Your task to perform on an android device: check data usage Image 0: 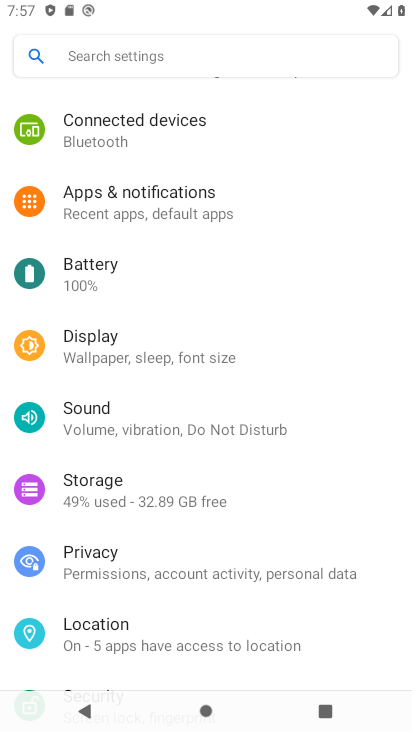
Step 0: drag from (378, 488) to (375, 309)
Your task to perform on an android device: check data usage Image 1: 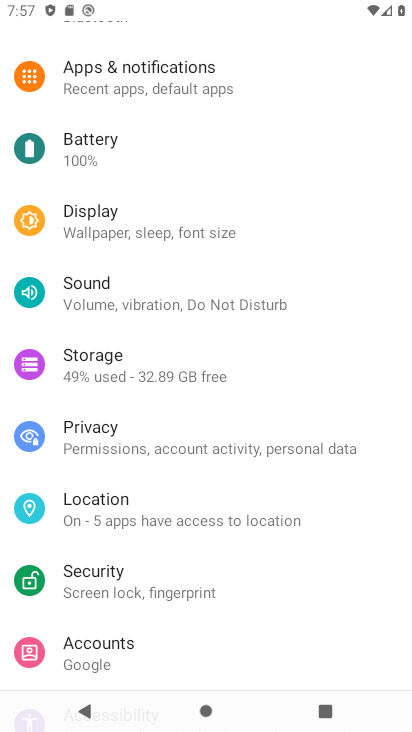
Step 1: drag from (362, 591) to (345, 413)
Your task to perform on an android device: check data usage Image 2: 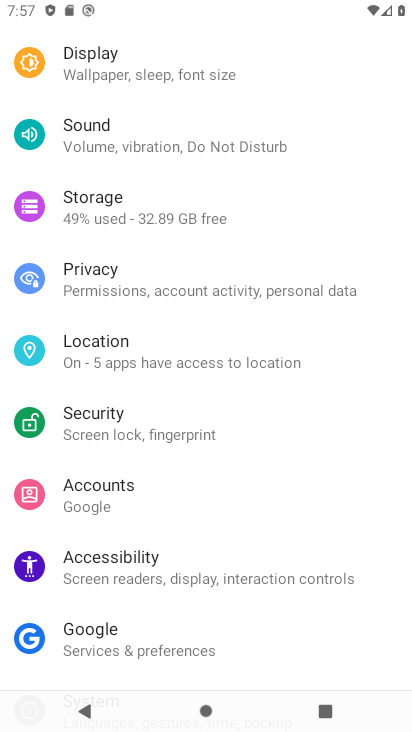
Step 2: drag from (323, 637) to (337, 464)
Your task to perform on an android device: check data usage Image 3: 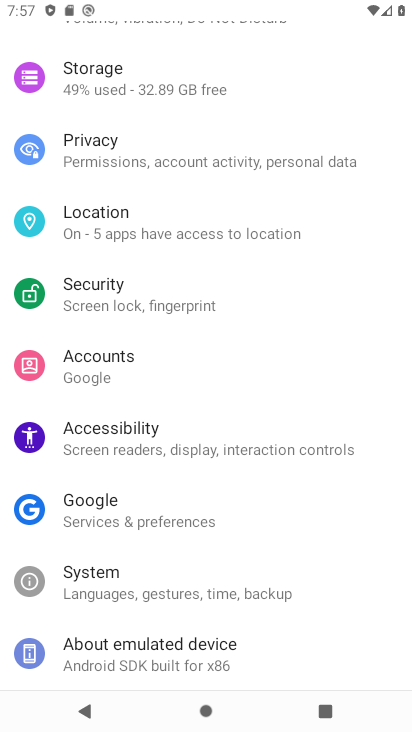
Step 3: drag from (329, 636) to (343, 491)
Your task to perform on an android device: check data usage Image 4: 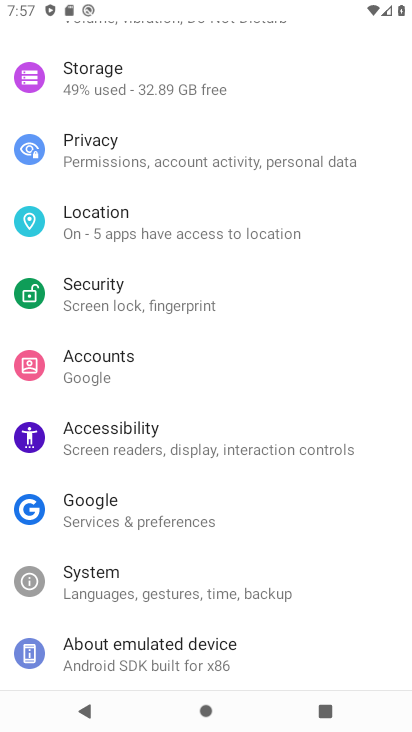
Step 4: drag from (336, 357) to (339, 476)
Your task to perform on an android device: check data usage Image 5: 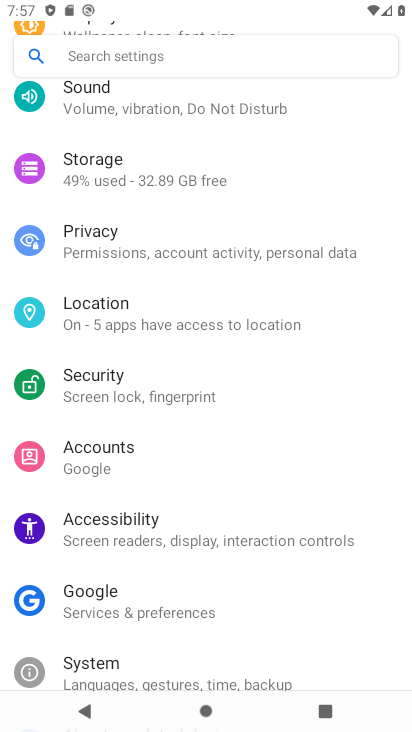
Step 5: drag from (350, 335) to (362, 440)
Your task to perform on an android device: check data usage Image 6: 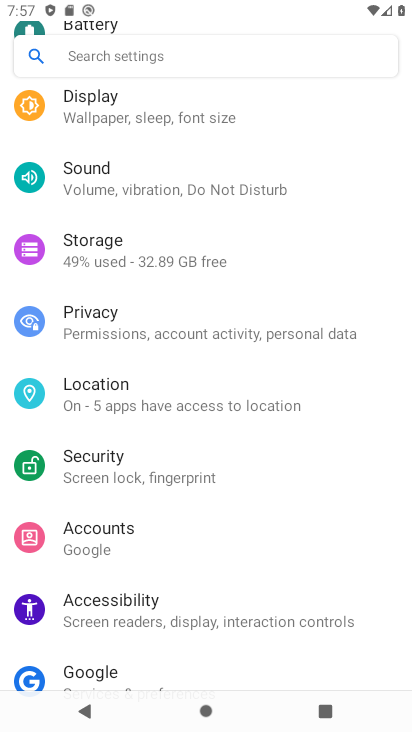
Step 6: drag from (387, 293) to (365, 444)
Your task to perform on an android device: check data usage Image 7: 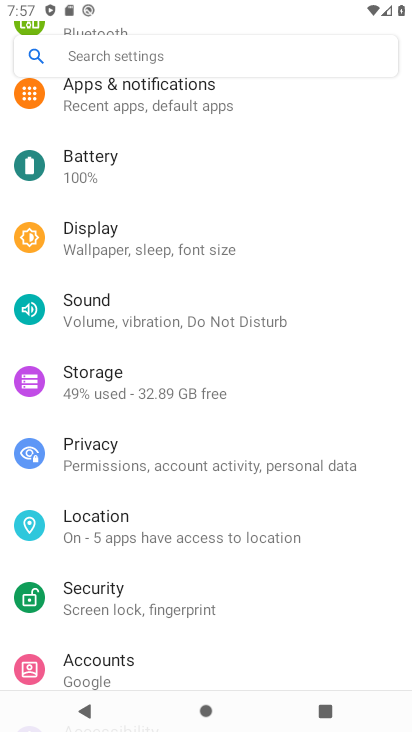
Step 7: drag from (350, 274) to (353, 422)
Your task to perform on an android device: check data usage Image 8: 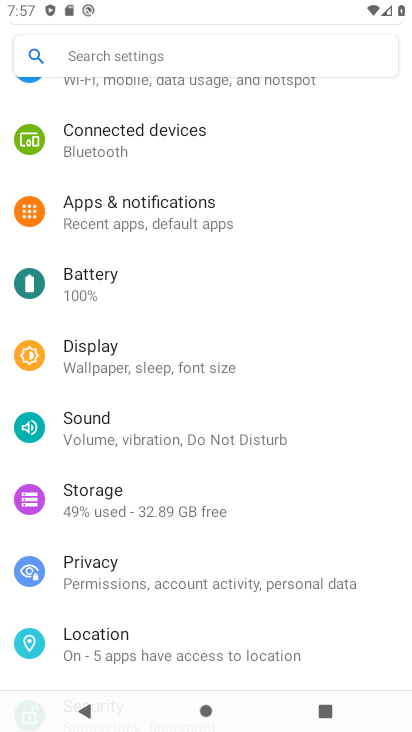
Step 8: drag from (343, 270) to (358, 377)
Your task to perform on an android device: check data usage Image 9: 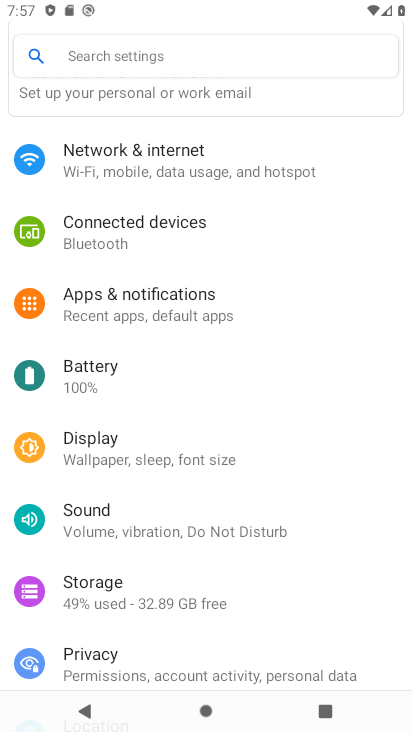
Step 9: drag from (345, 255) to (329, 365)
Your task to perform on an android device: check data usage Image 10: 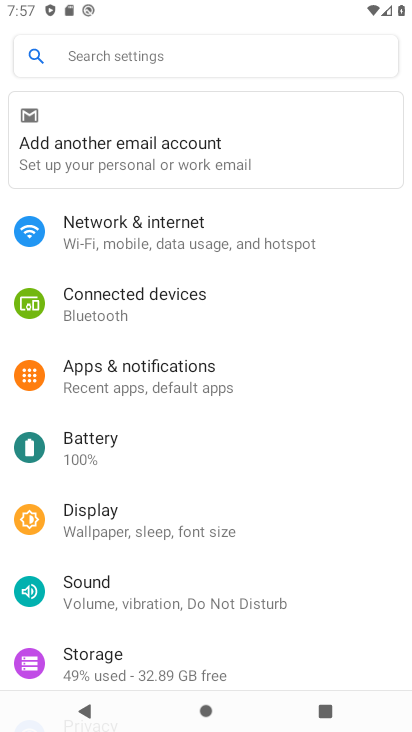
Step 10: drag from (348, 199) to (339, 361)
Your task to perform on an android device: check data usage Image 11: 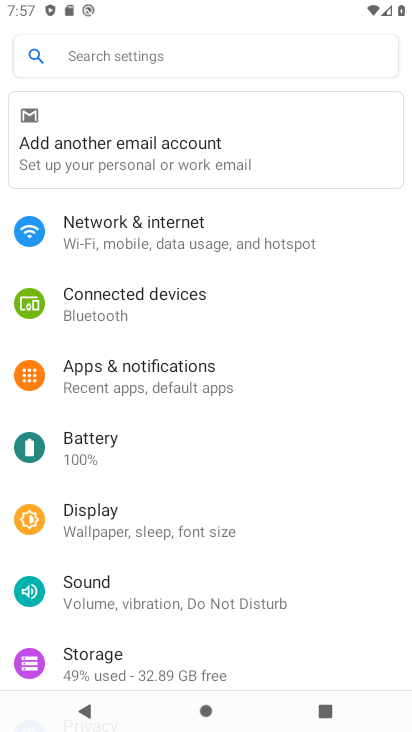
Step 11: click (254, 236)
Your task to perform on an android device: check data usage Image 12: 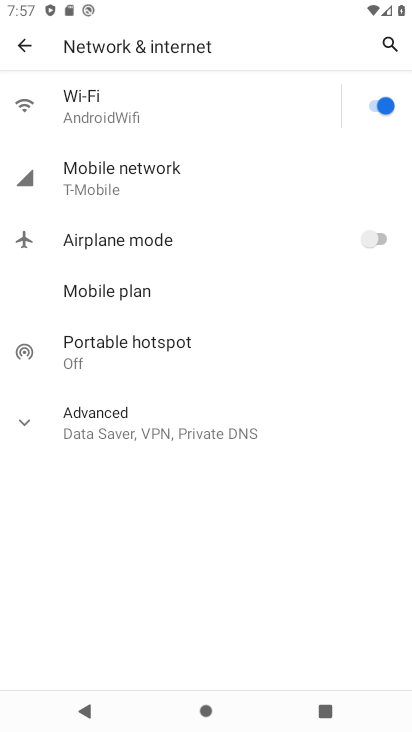
Step 12: click (155, 173)
Your task to perform on an android device: check data usage Image 13: 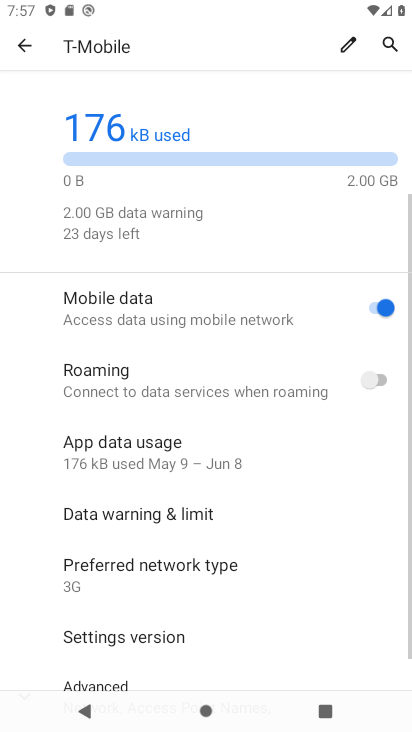
Step 13: drag from (255, 569) to (250, 400)
Your task to perform on an android device: check data usage Image 14: 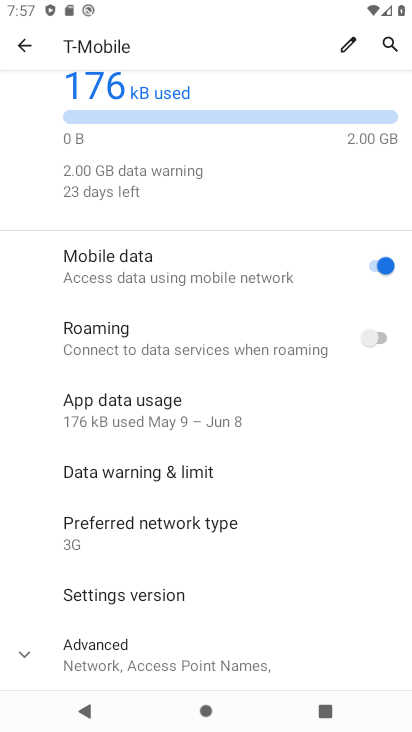
Step 14: click (205, 411)
Your task to perform on an android device: check data usage Image 15: 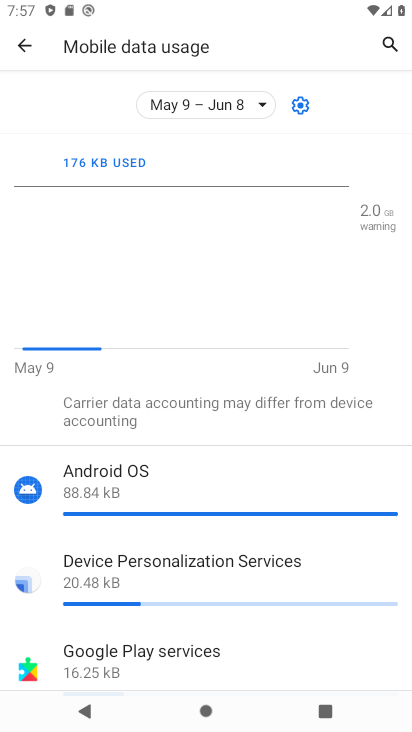
Step 15: task complete